Your task to perform on an android device: change the clock display to digital Image 0: 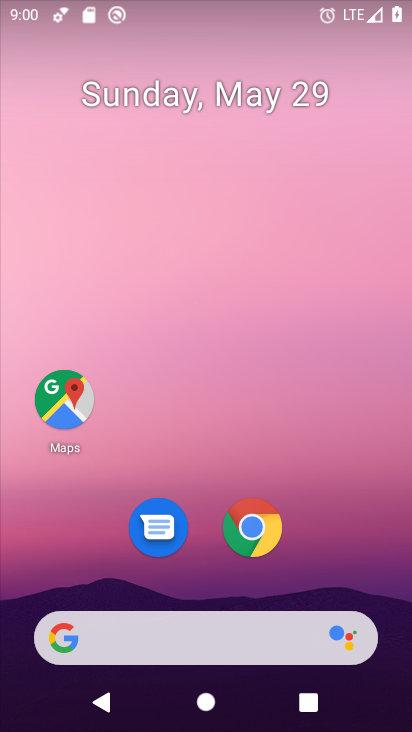
Step 0: press home button
Your task to perform on an android device: change the clock display to digital Image 1: 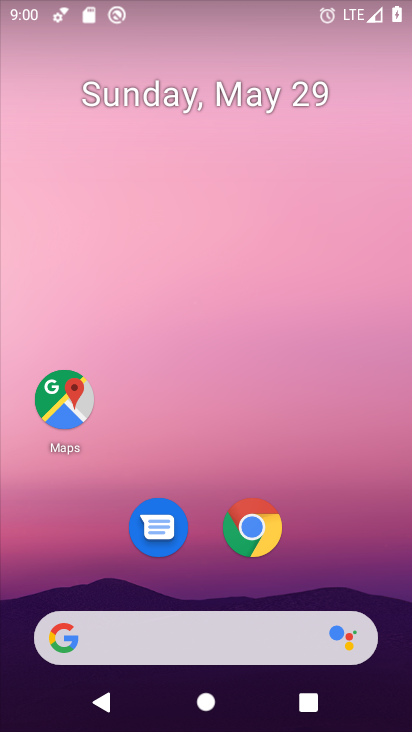
Step 1: drag from (201, 576) to (214, 36)
Your task to perform on an android device: change the clock display to digital Image 2: 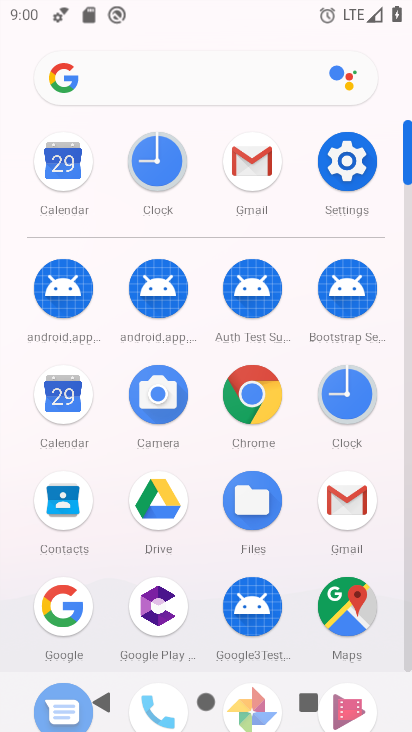
Step 2: click (345, 388)
Your task to perform on an android device: change the clock display to digital Image 3: 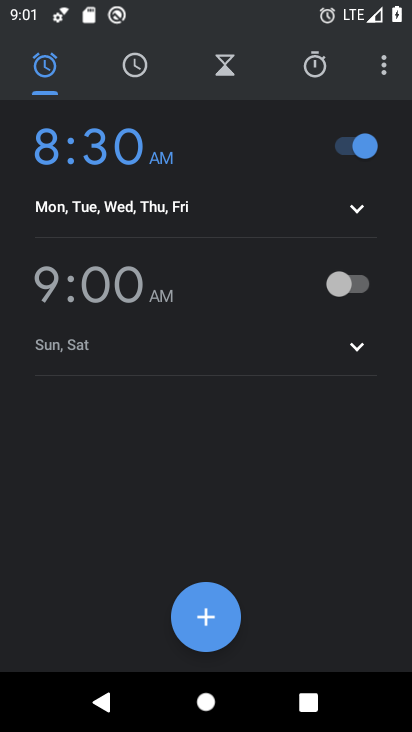
Step 3: click (379, 68)
Your task to perform on an android device: change the clock display to digital Image 4: 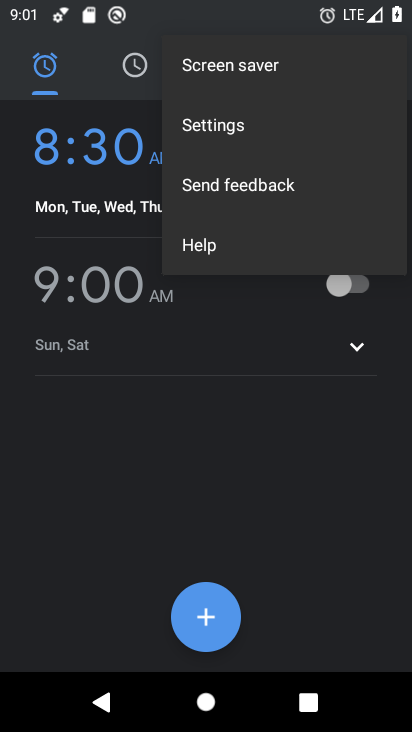
Step 4: click (258, 132)
Your task to perform on an android device: change the clock display to digital Image 5: 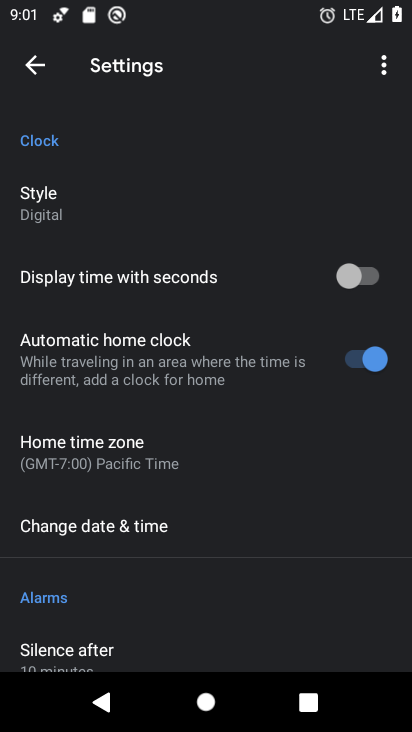
Step 5: click (93, 205)
Your task to perform on an android device: change the clock display to digital Image 6: 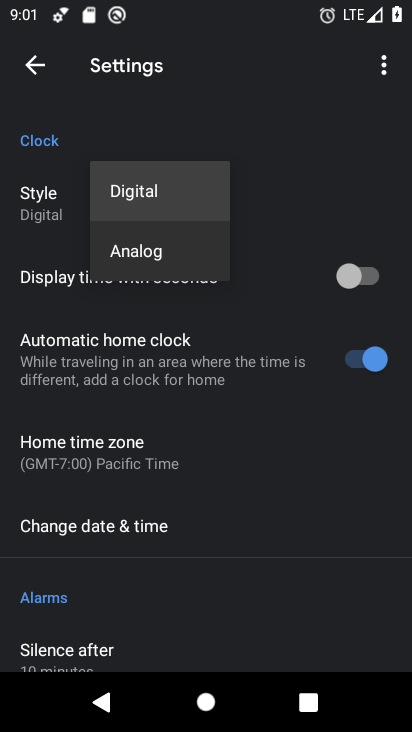
Step 6: click (133, 188)
Your task to perform on an android device: change the clock display to digital Image 7: 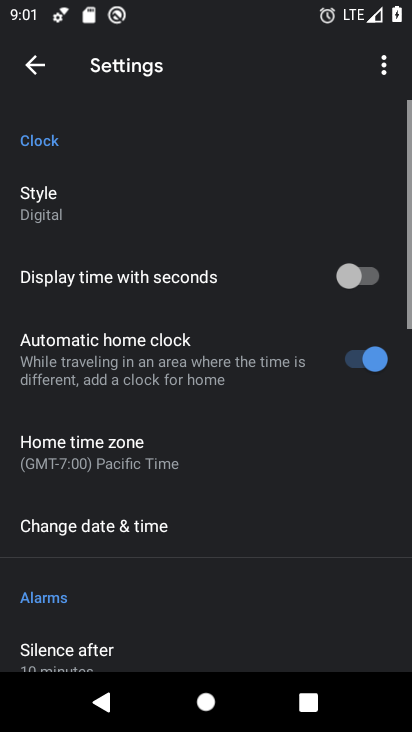
Step 7: task complete